Your task to perform on an android device: Go to Google Image 0: 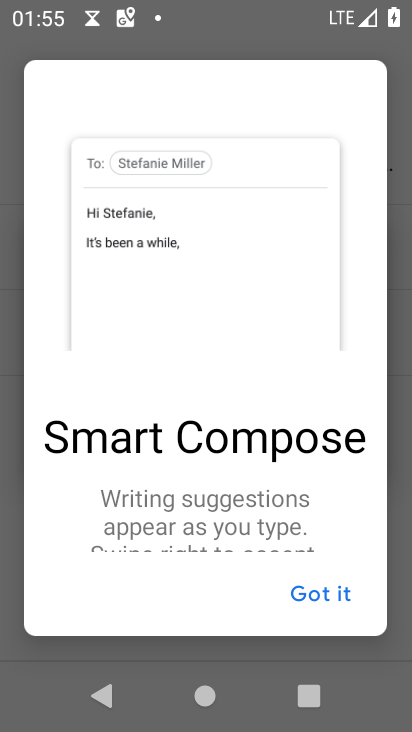
Step 0: press home button
Your task to perform on an android device: Go to Google Image 1: 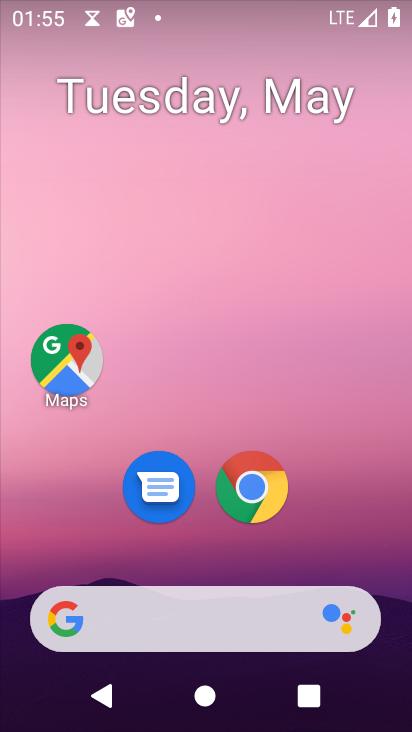
Step 1: click (134, 614)
Your task to perform on an android device: Go to Google Image 2: 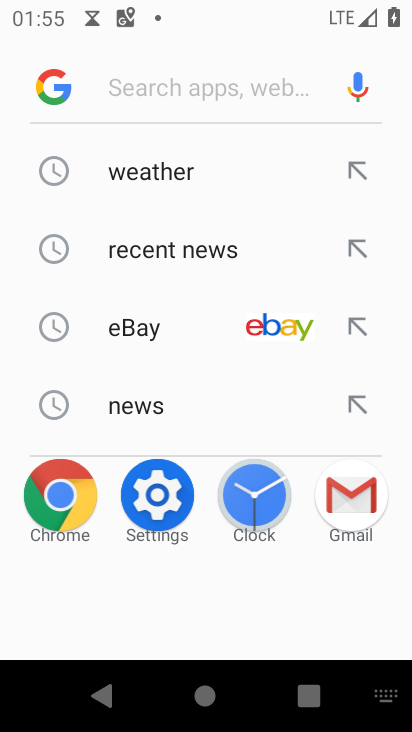
Step 2: task complete